Your task to perform on an android device: Open location settings Image 0: 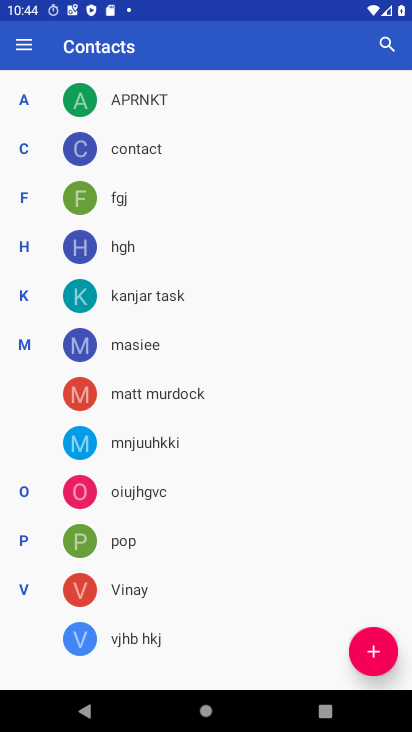
Step 0: press home button
Your task to perform on an android device: Open location settings Image 1: 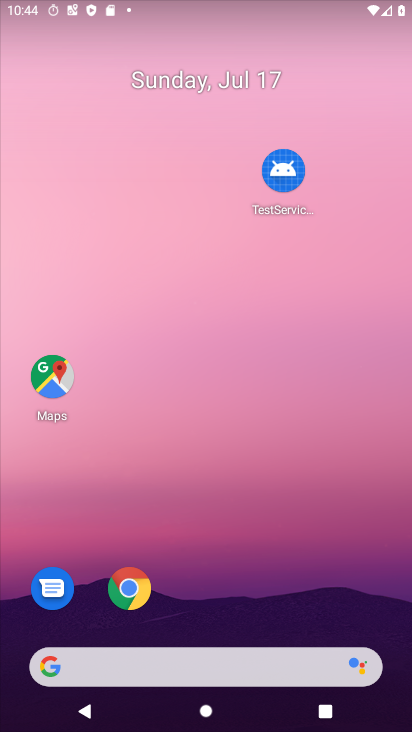
Step 1: drag from (268, 599) to (364, 3)
Your task to perform on an android device: Open location settings Image 2: 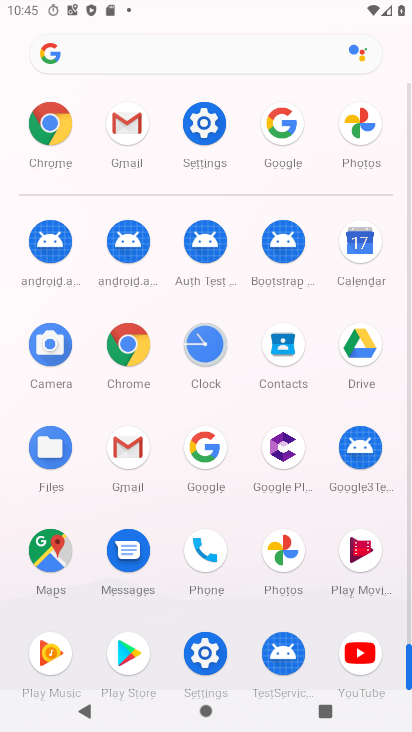
Step 2: click (204, 136)
Your task to perform on an android device: Open location settings Image 3: 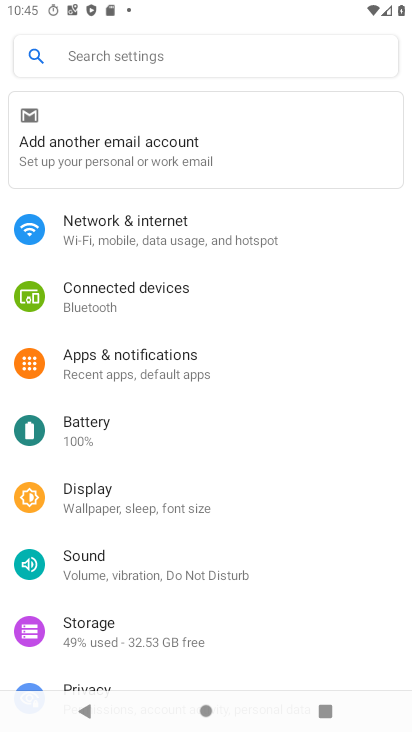
Step 3: drag from (175, 538) to (177, 397)
Your task to perform on an android device: Open location settings Image 4: 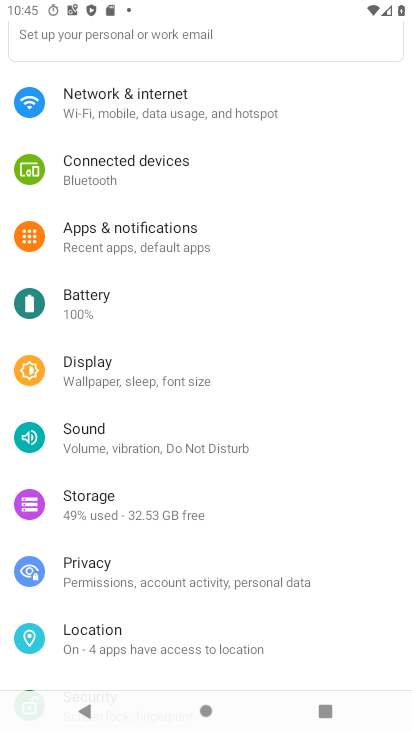
Step 4: click (167, 637)
Your task to perform on an android device: Open location settings Image 5: 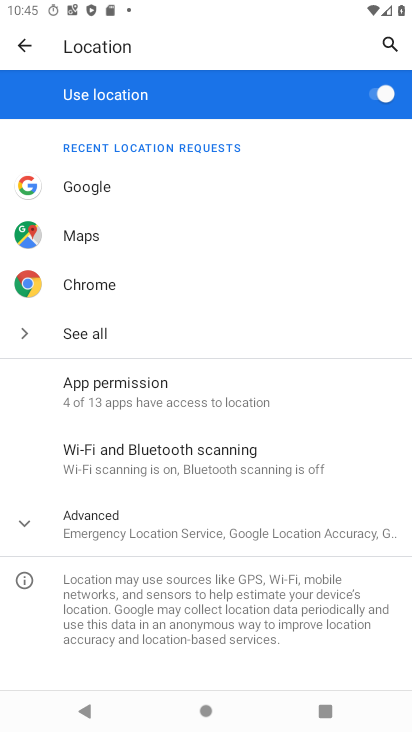
Step 5: task complete